Your task to perform on an android device: add a label to a message in the gmail app Image 0: 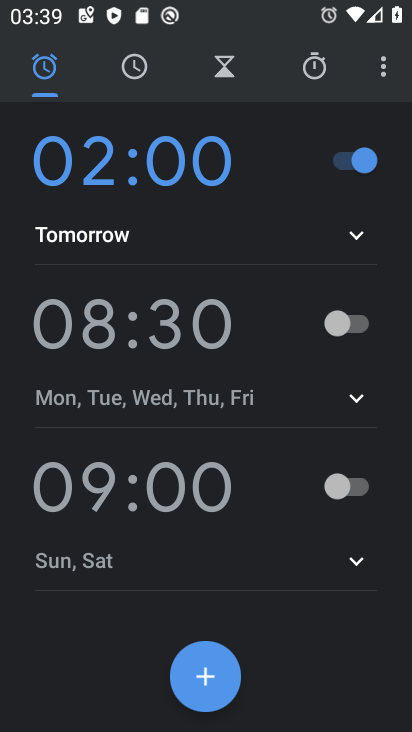
Step 0: press home button
Your task to perform on an android device: add a label to a message in the gmail app Image 1: 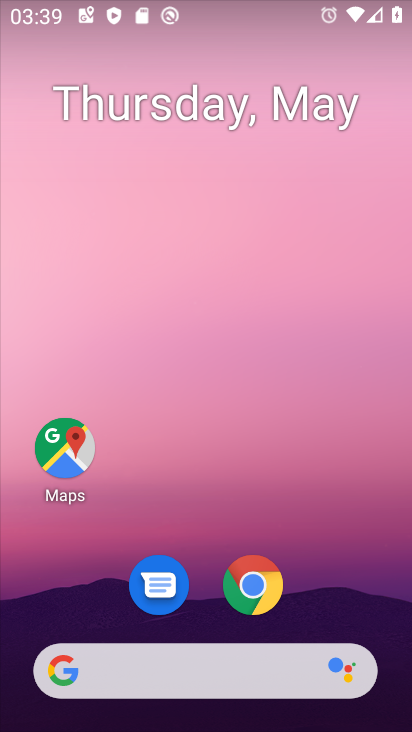
Step 1: drag from (191, 503) to (131, 93)
Your task to perform on an android device: add a label to a message in the gmail app Image 2: 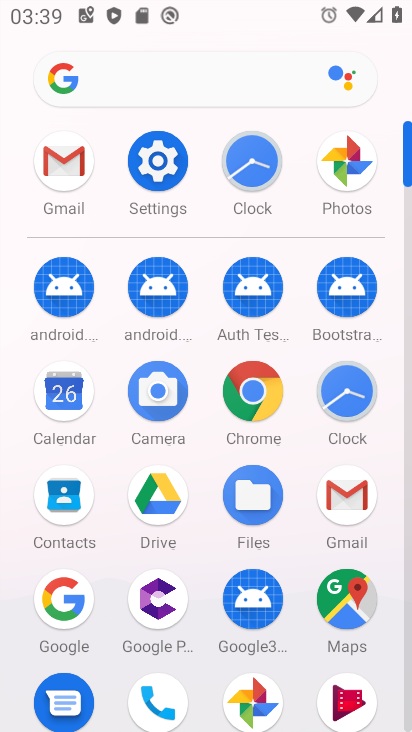
Step 2: click (71, 165)
Your task to perform on an android device: add a label to a message in the gmail app Image 3: 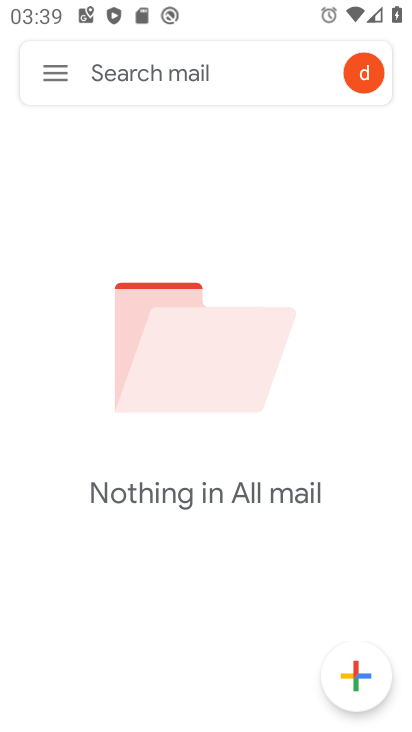
Step 3: task complete